Your task to perform on an android device: open a bookmark in the chrome app Image 0: 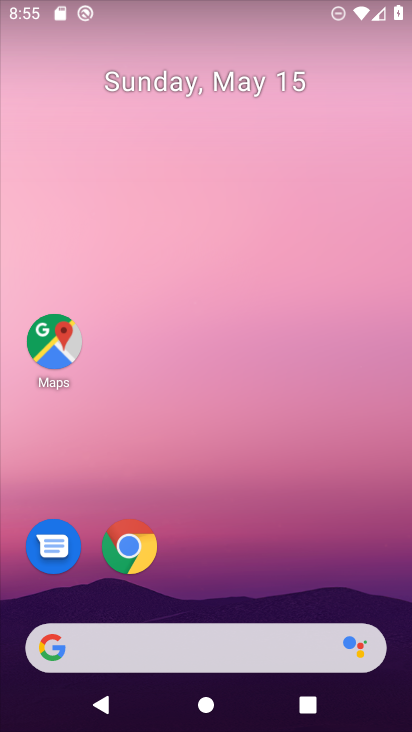
Step 0: click (128, 545)
Your task to perform on an android device: open a bookmark in the chrome app Image 1: 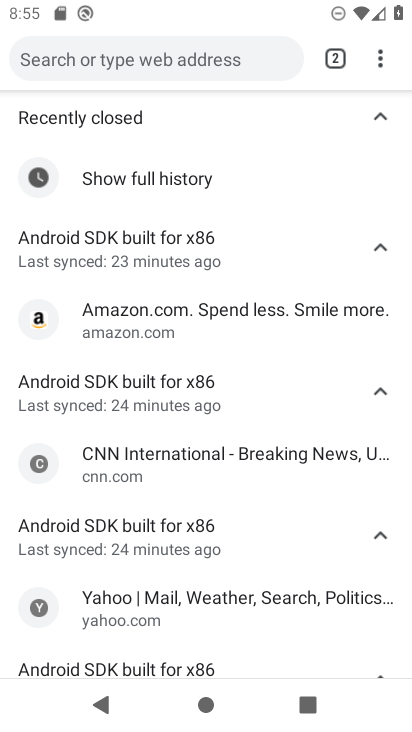
Step 1: click (377, 55)
Your task to perform on an android device: open a bookmark in the chrome app Image 2: 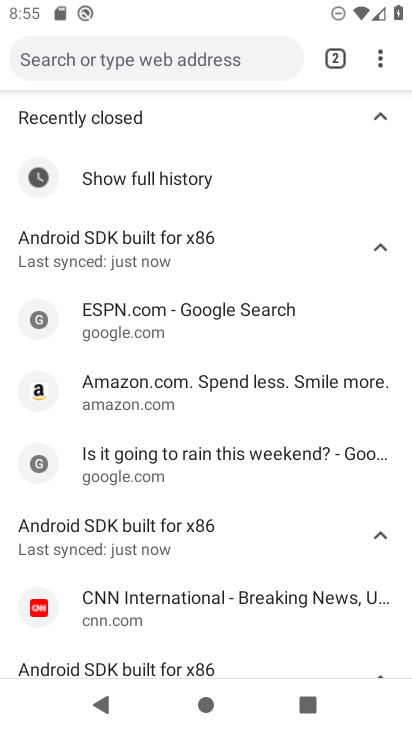
Step 2: click (392, 71)
Your task to perform on an android device: open a bookmark in the chrome app Image 3: 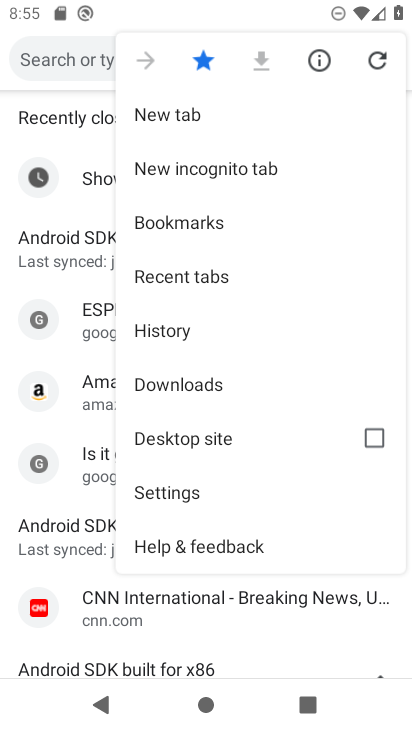
Step 3: click (205, 222)
Your task to perform on an android device: open a bookmark in the chrome app Image 4: 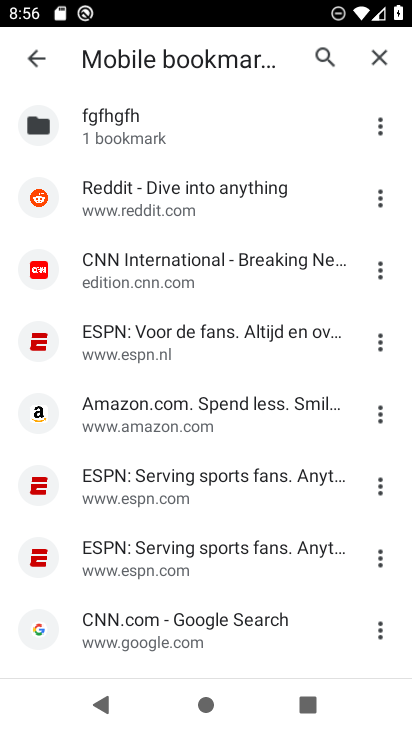
Step 4: click (203, 474)
Your task to perform on an android device: open a bookmark in the chrome app Image 5: 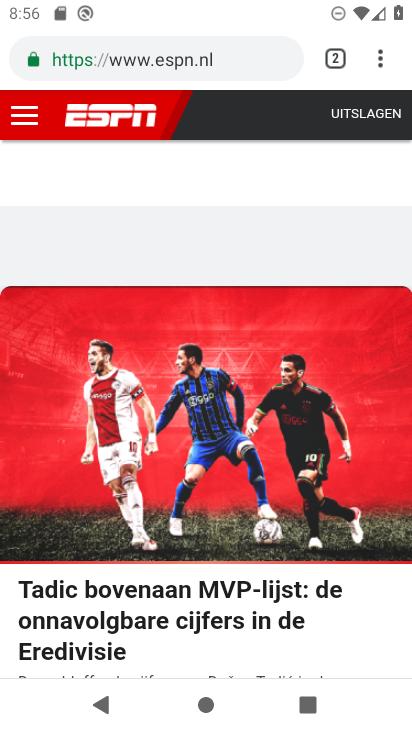
Step 5: task complete